Your task to perform on an android device: Go to Google Image 0: 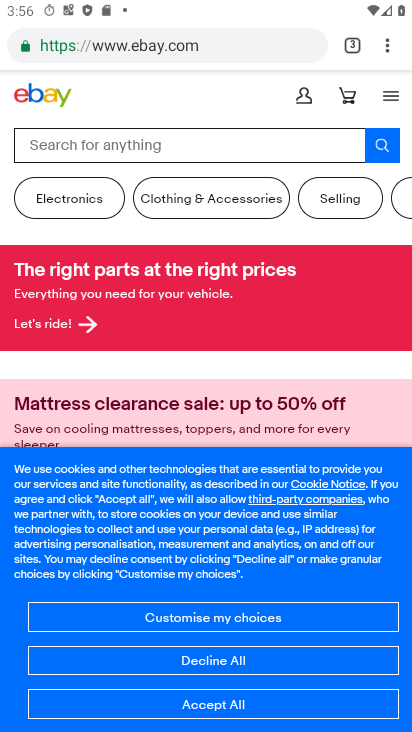
Step 0: press home button
Your task to perform on an android device: Go to Google Image 1: 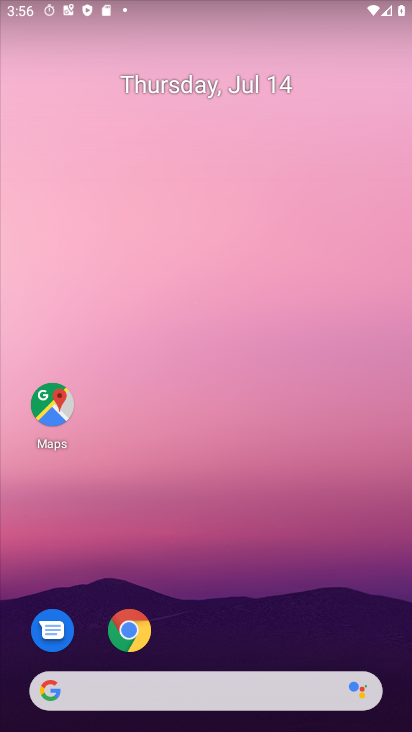
Step 1: drag from (234, 717) to (239, 126)
Your task to perform on an android device: Go to Google Image 2: 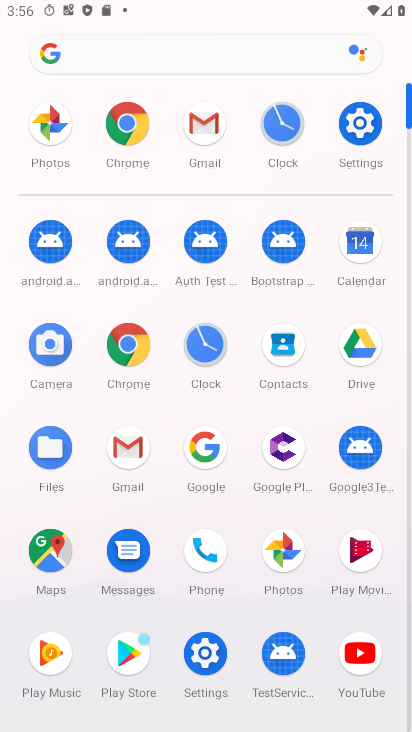
Step 2: click (194, 446)
Your task to perform on an android device: Go to Google Image 3: 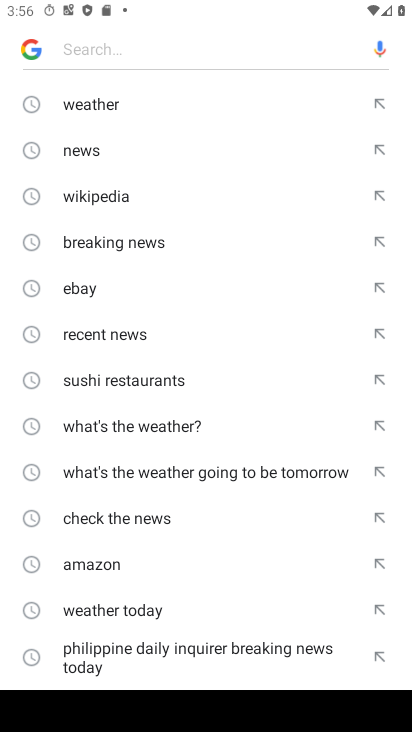
Step 3: task complete